Your task to perform on an android device: Search for "razer blade" on bestbuy, select the first entry, add it to the cart, then select checkout. Image 0: 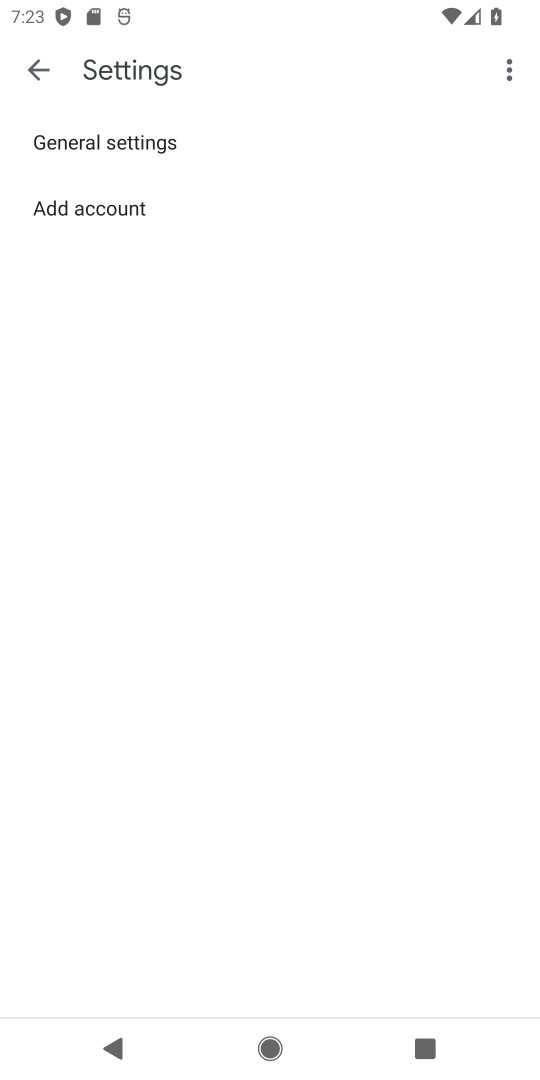
Step 0: press home button
Your task to perform on an android device: Search for "razer blade" on bestbuy, select the first entry, add it to the cart, then select checkout. Image 1: 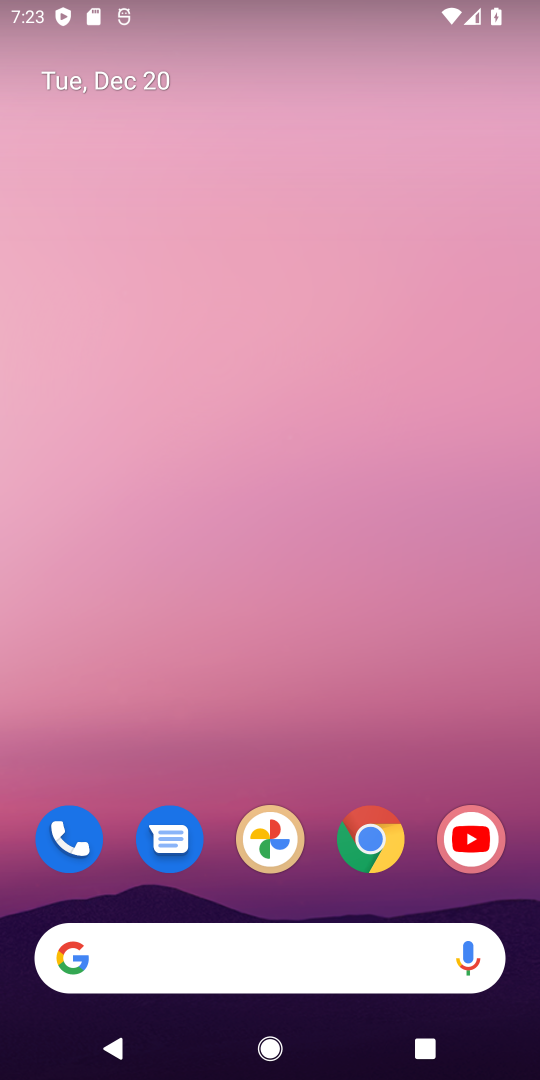
Step 1: click (262, 942)
Your task to perform on an android device: Search for "razer blade" on bestbuy, select the first entry, add it to the cart, then select checkout. Image 2: 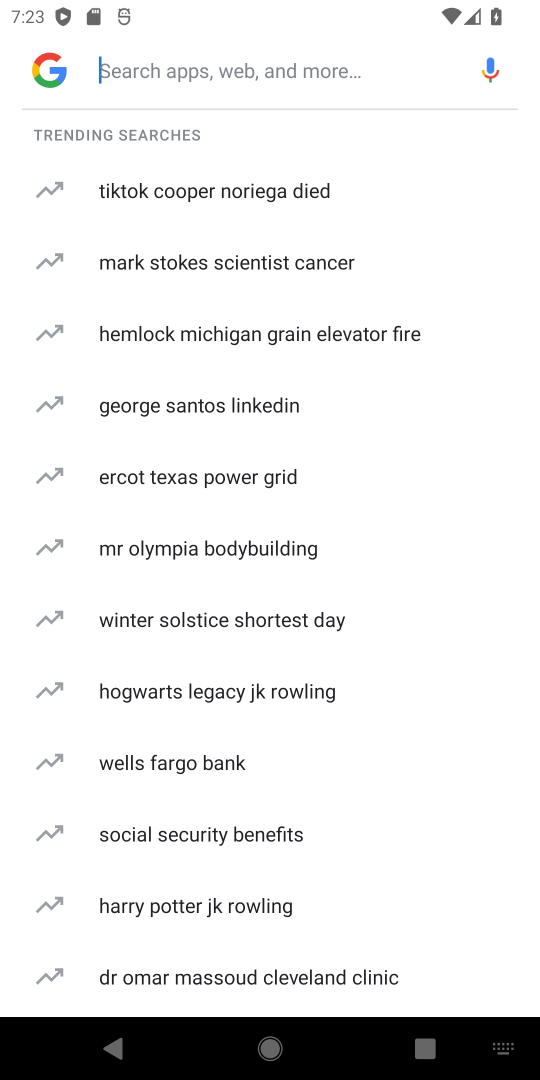
Step 2: type "bestbuy"
Your task to perform on an android device: Search for "razer blade" on bestbuy, select the first entry, add it to the cart, then select checkout. Image 3: 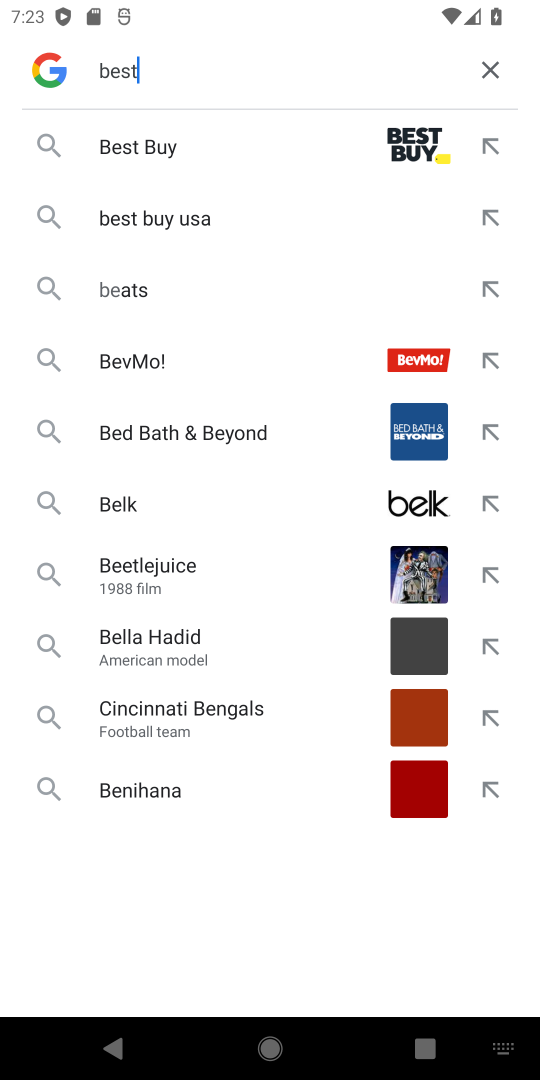
Step 3: type ""
Your task to perform on an android device: Search for "razer blade" on bestbuy, select the first entry, add it to the cart, then select checkout. Image 4: 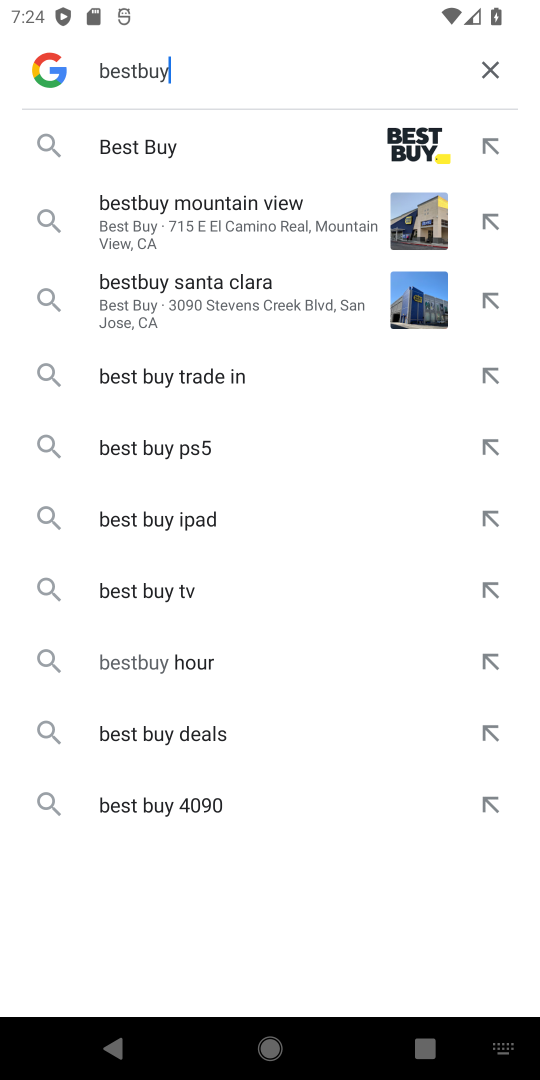
Step 4: click (255, 151)
Your task to perform on an android device: Search for "razer blade" on bestbuy, select the first entry, add it to the cart, then select checkout. Image 5: 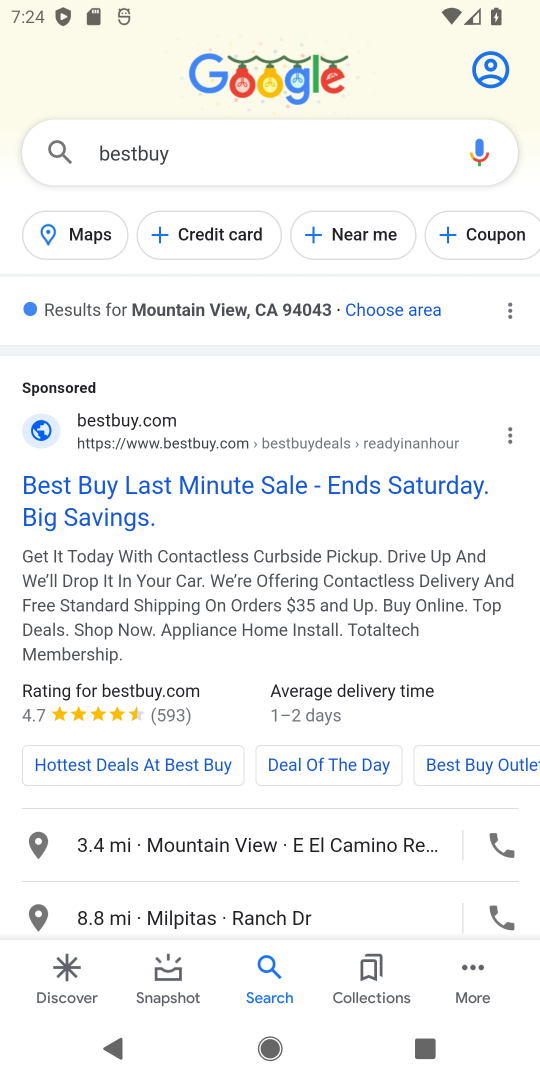
Step 5: click (174, 485)
Your task to perform on an android device: Search for "razer blade" on bestbuy, select the first entry, add it to the cart, then select checkout. Image 6: 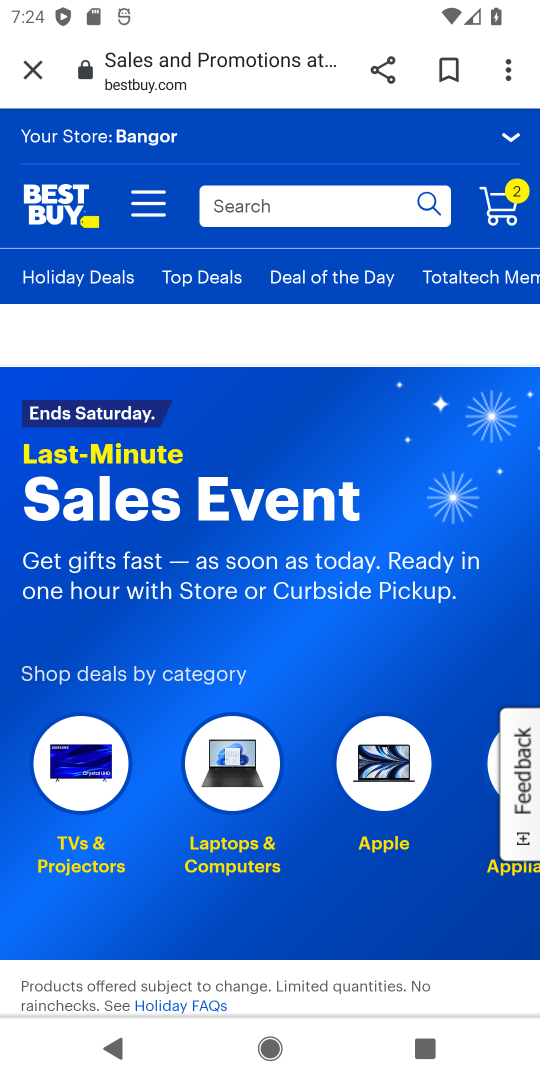
Step 6: click (321, 206)
Your task to perform on an android device: Search for "razer blade" on bestbuy, select the first entry, add it to the cart, then select checkout. Image 7: 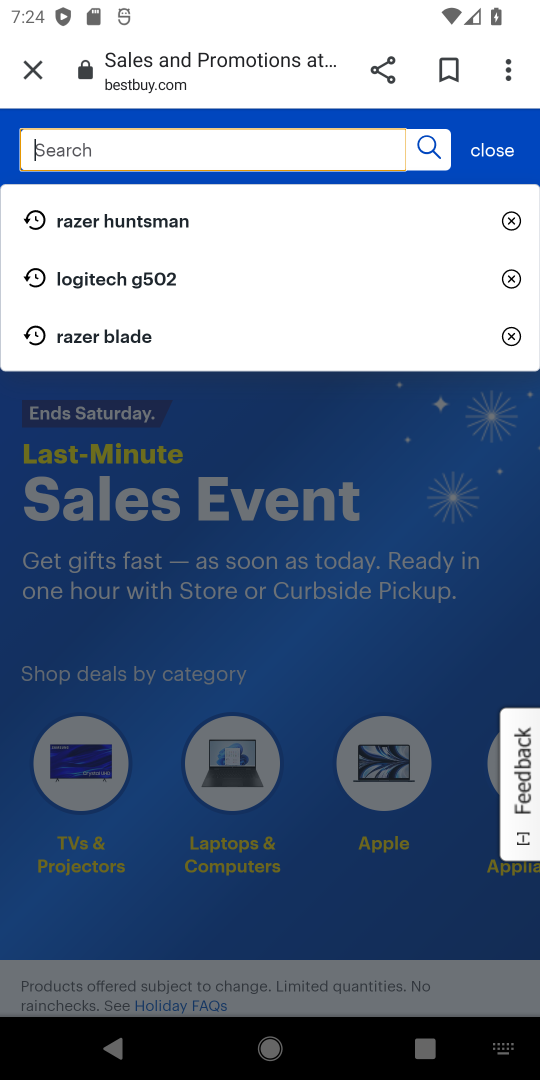
Step 7: type "razer blade"
Your task to perform on an android device: Search for "razer blade" on bestbuy, select the first entry, add it to the cart, then select checkout. Image 8: 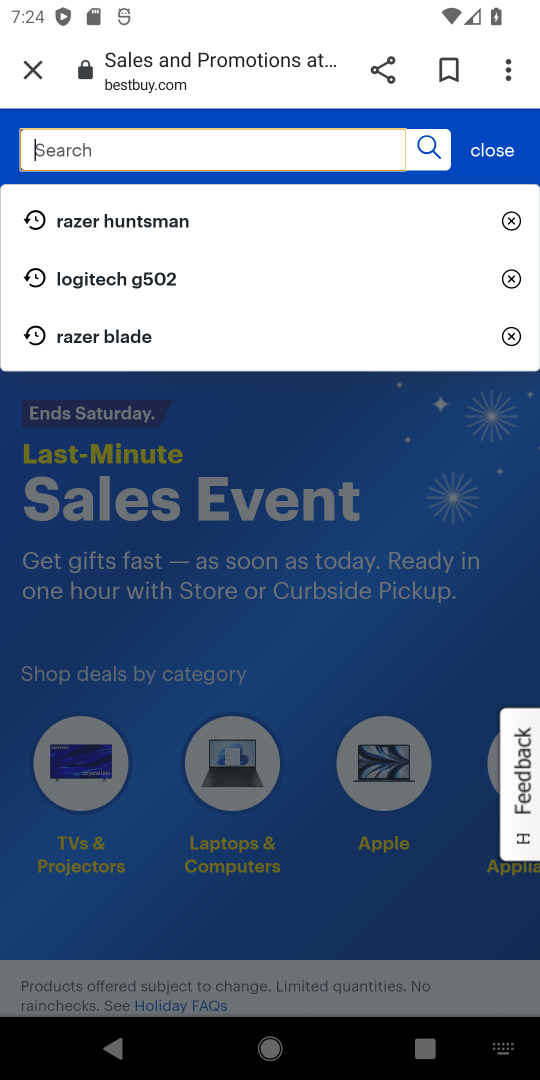
Step 8: type ""
Your task to perform on an android device: Search for "razer blade" on bestbuy, select the first entry, add it to the cart, then select checkout. Image 9: 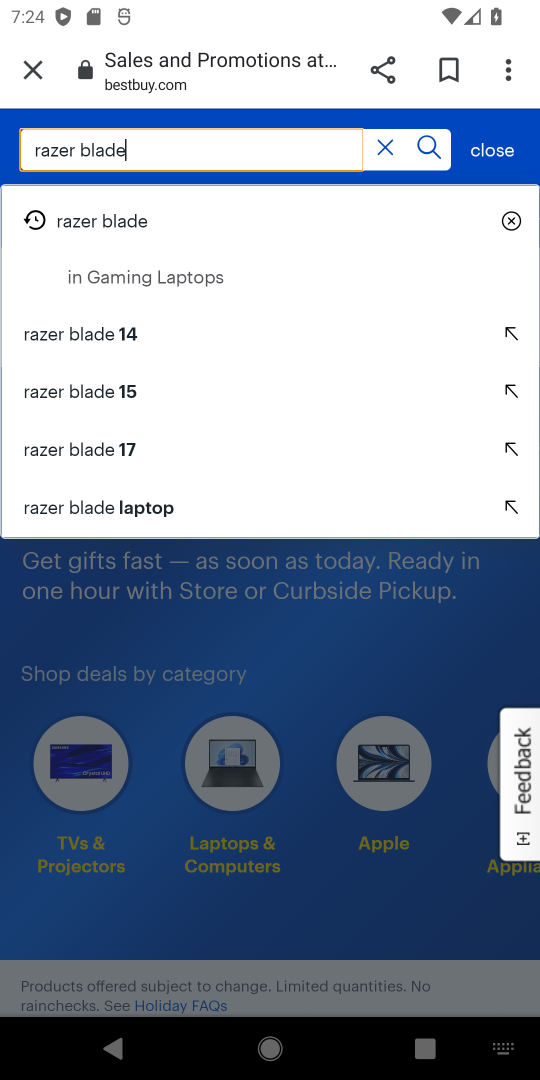
Step 9: click (428, 155)
Your task to perform on an android device: Search for "razer blade" on bestbuy, select the first entry, add it to the cart, then select checkout. Image 10: 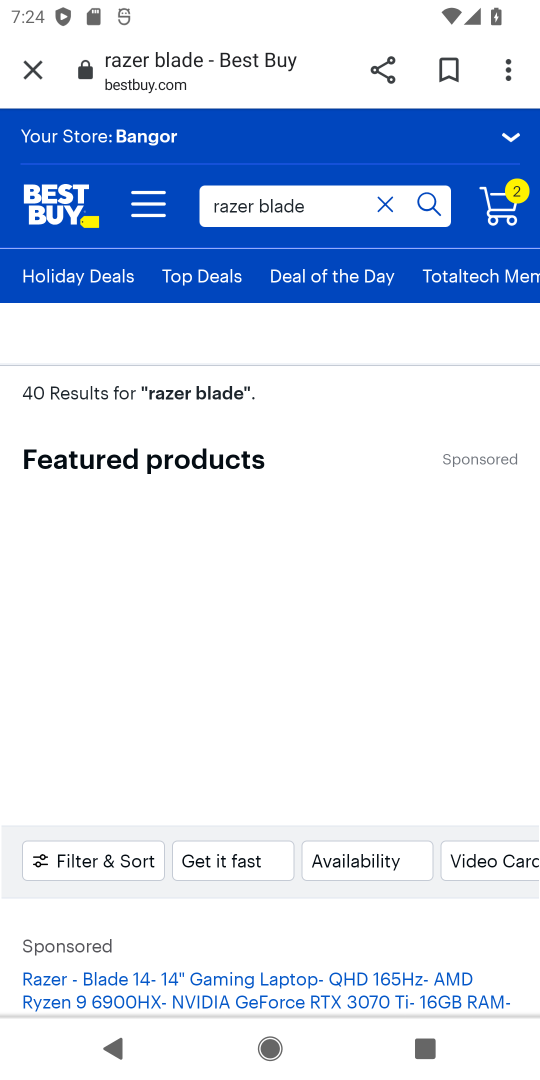
Step 10: drag from (281, 781) to (37, 273)
Your task to perform on an android device: Search for "razer blade" on bestbuy, select the first entry, add it to the cart, then select checkout. Image 11: 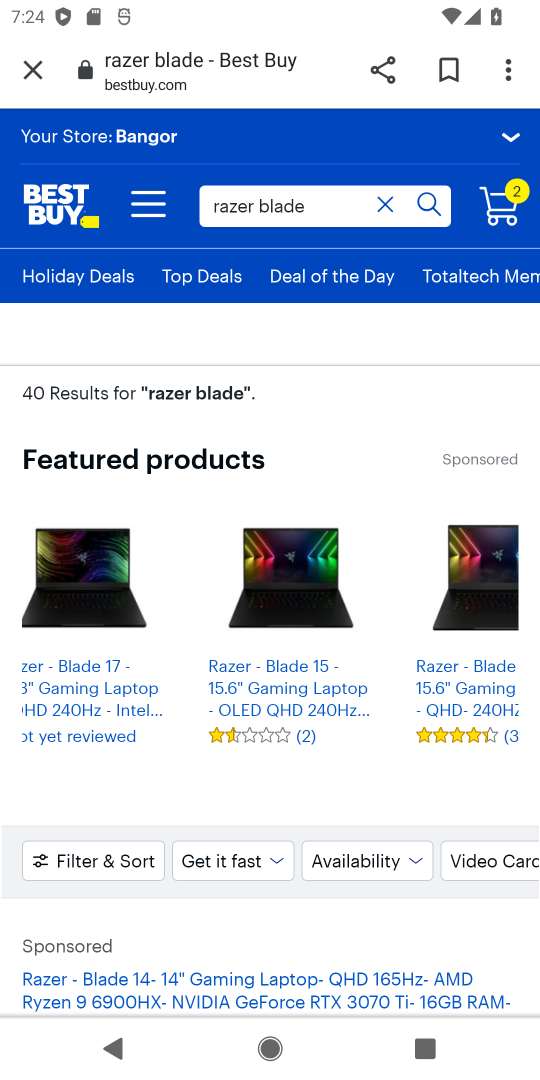
Step 11: drag from (303, 924) to (349, 465)
Your task to perform on an android device: Search for "razer blade" on bestbuy, select the first entry, add it to the cart, then select checkout. Image 12: 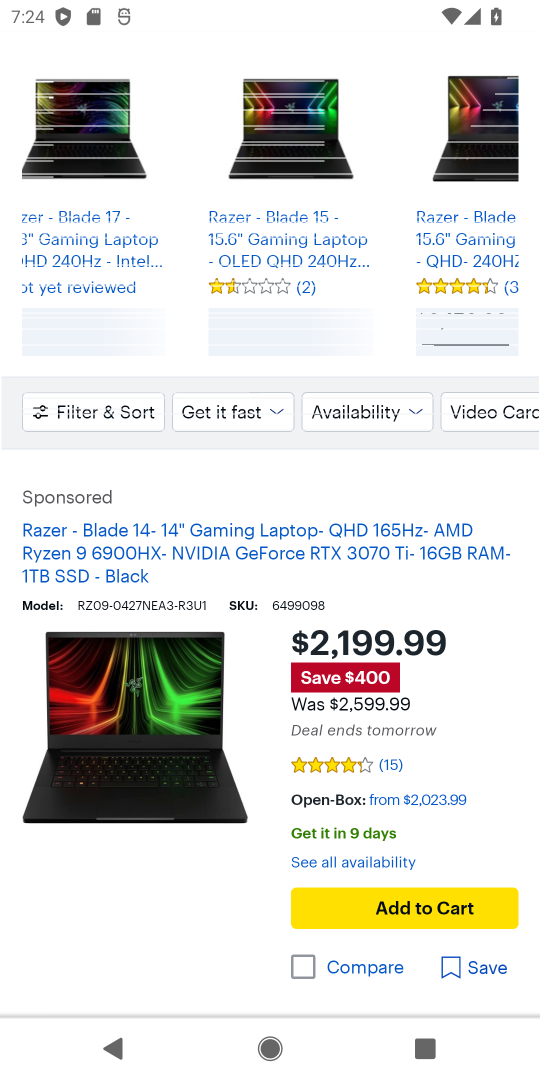
Step 12: drag from (364, 831) to (243, 512)
Your task to perform on an android device: Search for "razer blade" on bestbuy, select the first entry, add it to the cart, then select checkout. Image 13: 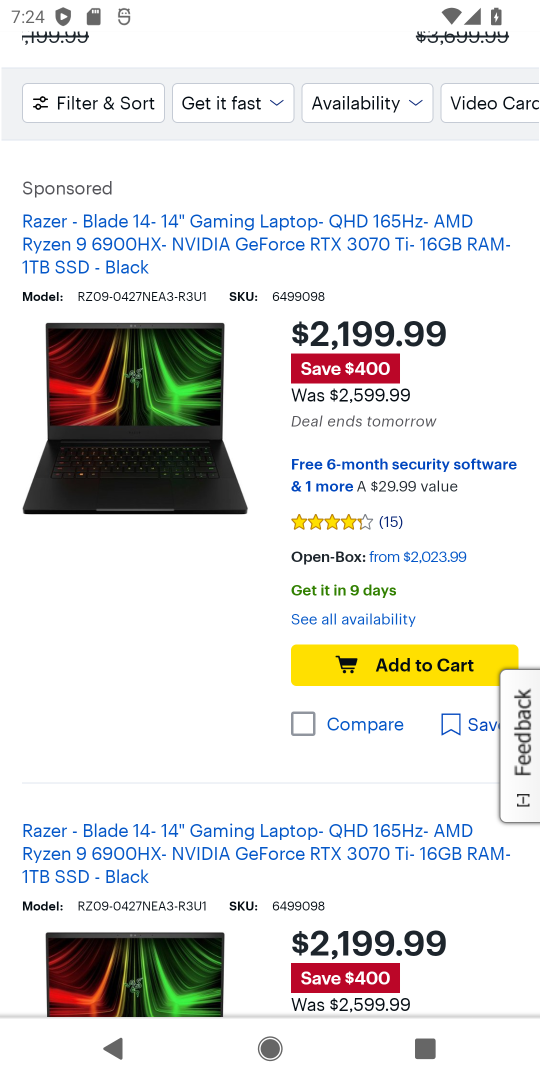
Step 13: click (423, 657)
Your task to perform on an android device: Search for "razer blade" on bestbuy, select the first entry, add it to the cart, then select checkout. Image 14: 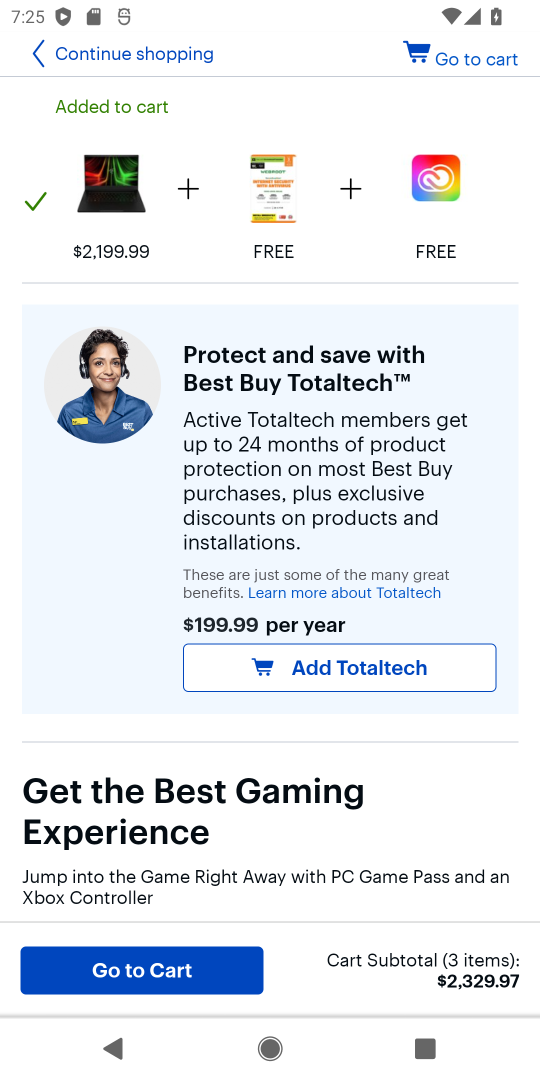
Step 14: click (211, 977)
Your task to perform on an android device: Search for "razer blade" on bestbuy, select the first entry, add it to the cart, then select checkout. Image 15: 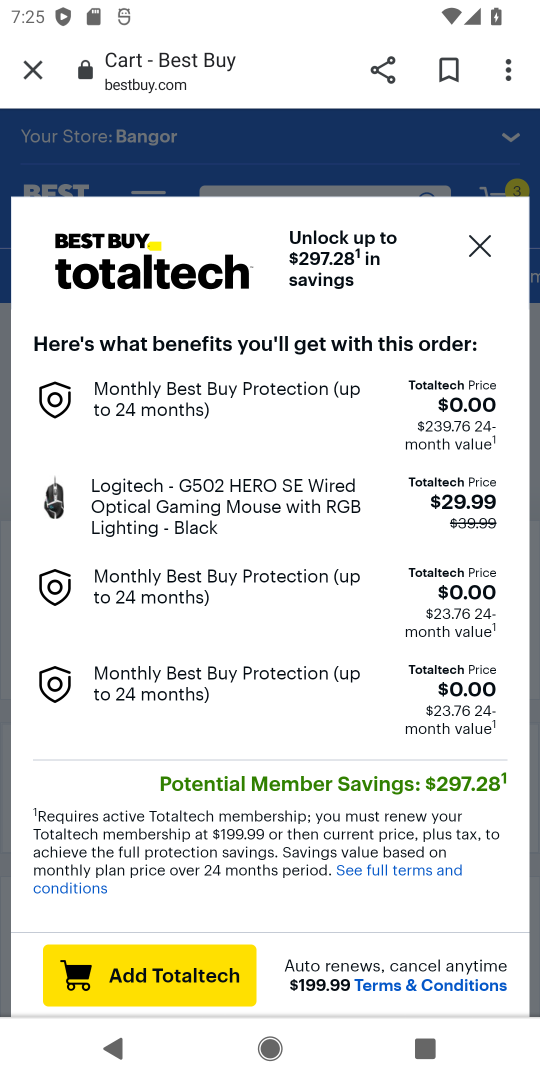
Step 15: click (477, 244)
Your task to perform on an android device: Search for "razer blade" on bestbuy, select the first entry, add it to the cart, then select checkout. Image 16: 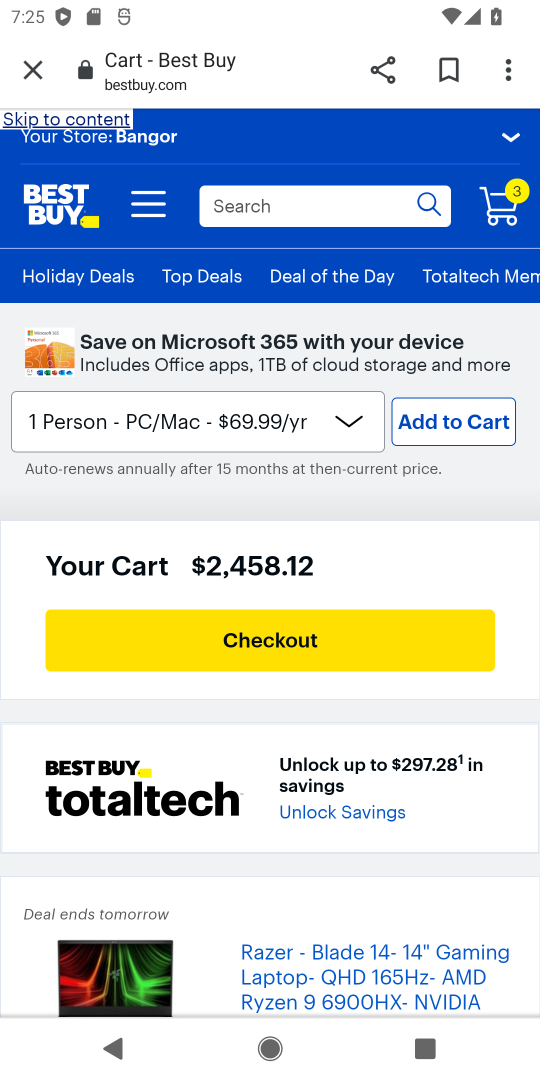
Step 16: click (288, 629)
Your task to perform on an android device: Search for "razer blade" on bestbuy, select the first entry, add it to the cart, then select checkout. Image 17: 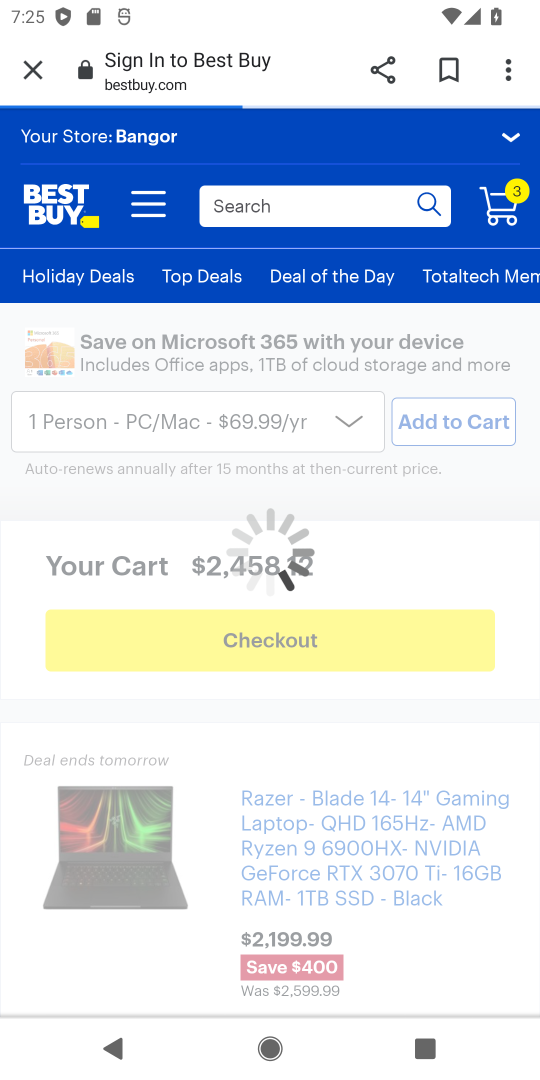
Step 17: task complete